Your task to perform on an android device: Open Google Maps and go to "Timeline" Image 0: 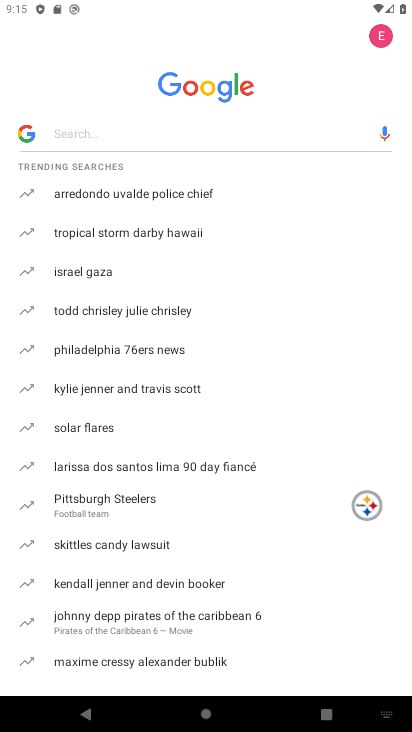
Step 0: press home button
Your task to perform on an android device: Open Google Maps and go to "Timeline" Image 1: 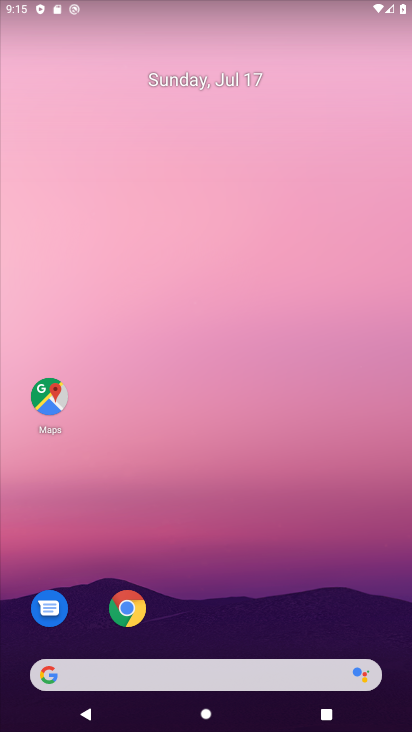
Step 1: drag from (280, 657) to (260, 1)
Your task to perform on an android device: Open Google Maps and go to "Timeline" Image 2: 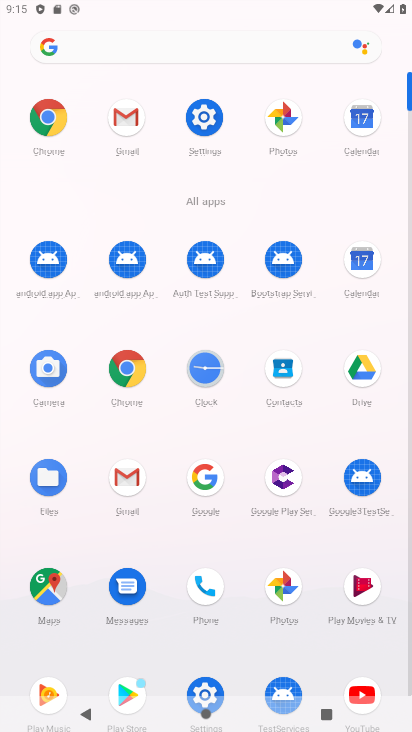
Step 2: click (48, 586)
Your task to perform on an android device: Open Google Maps and go to "Timeline" Image 3: 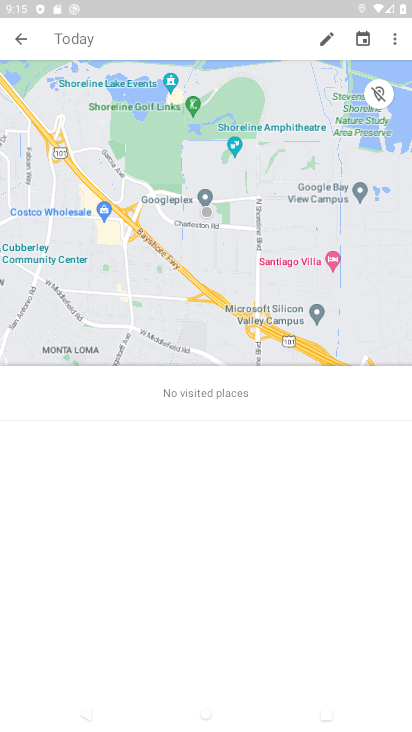
Step 3: task complete